Your task to perform on an android device: Open a new incognito window in Chrome Image 0: 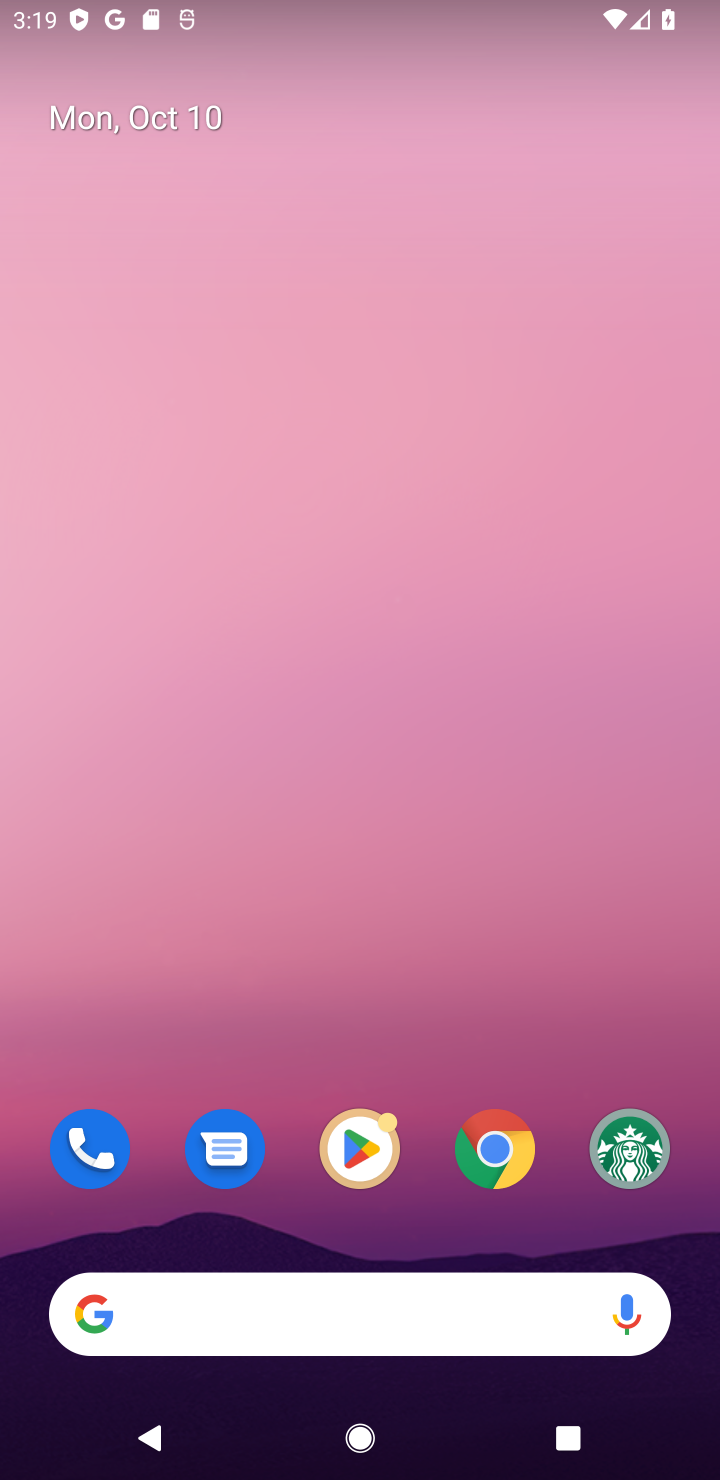
Step 0: click (462, 1155)
Your task to perform on an android device: Open a new incognito window in Chrome Image 1: 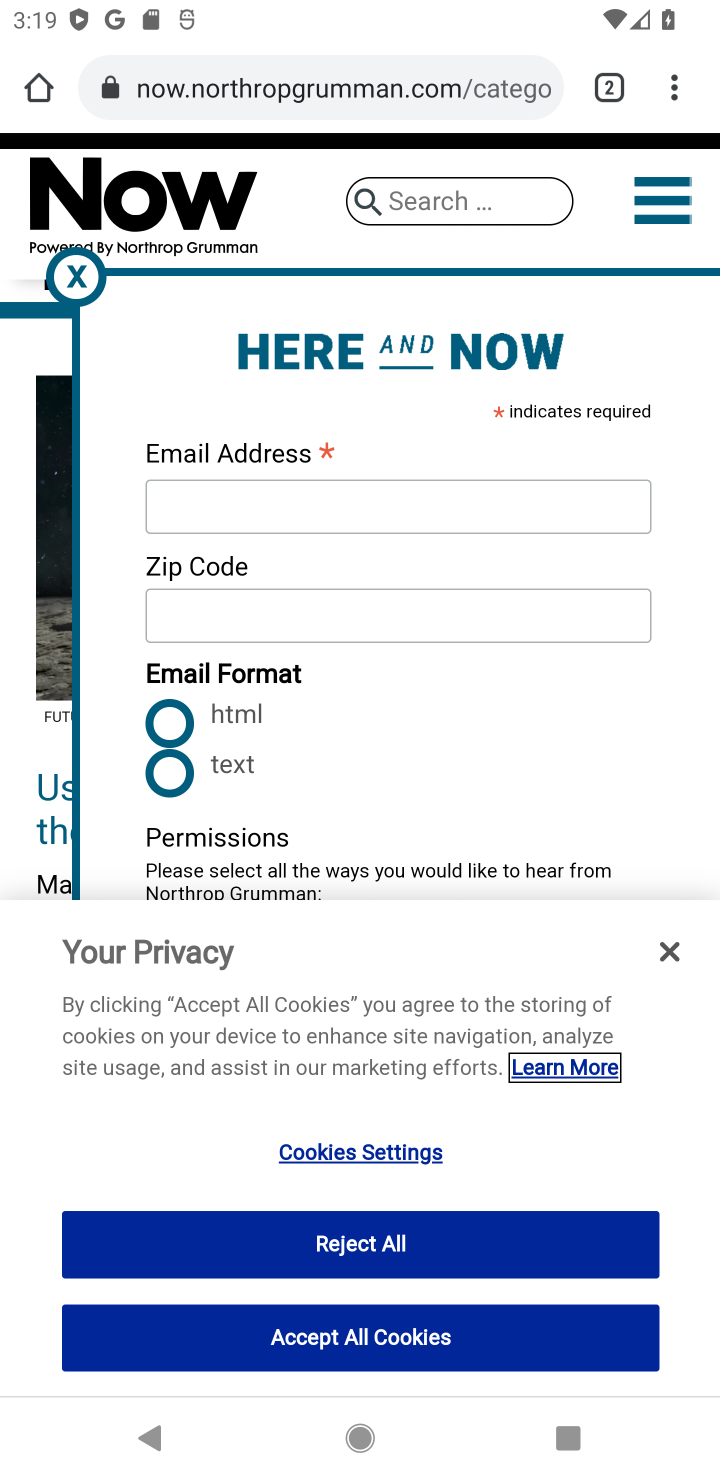
Step 1: click (674, 89)
Your task to perform on an android device: Open a new incognito window in Chrome Image 2: 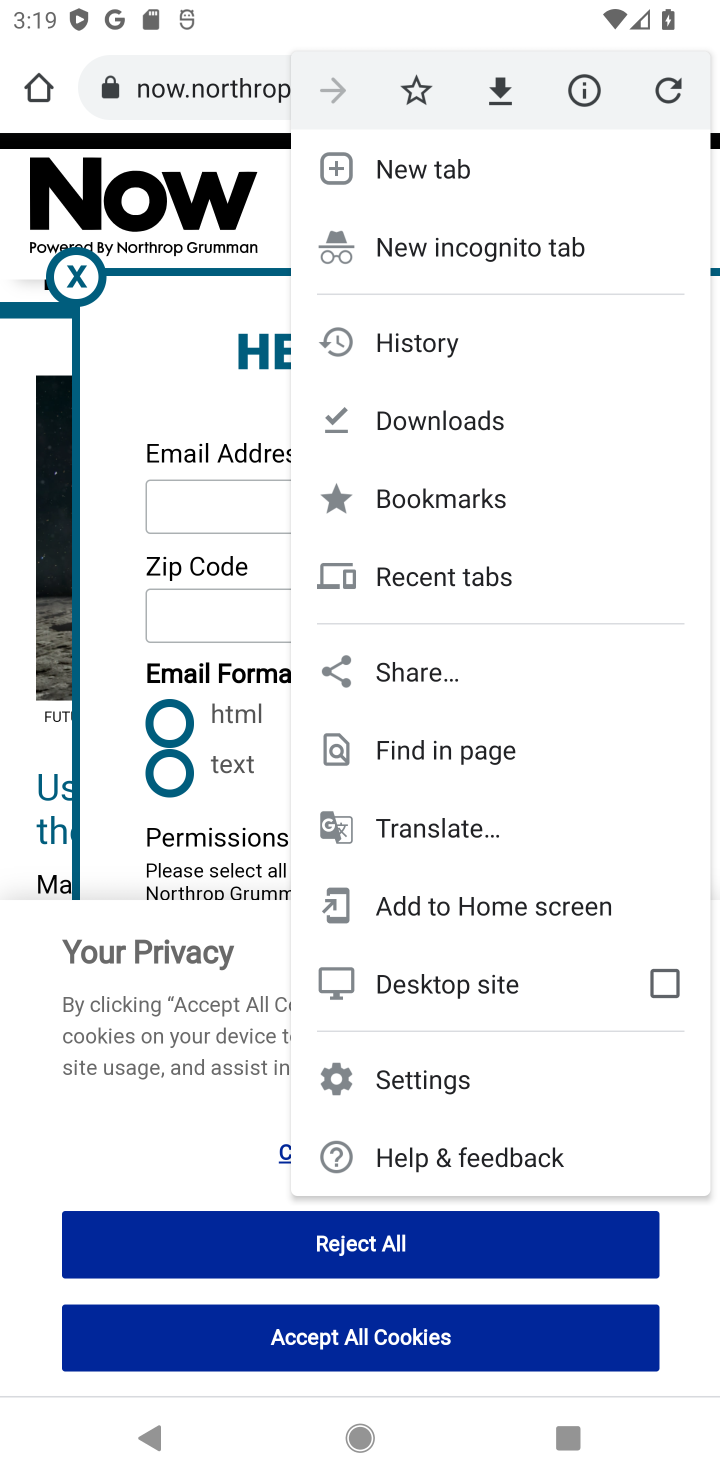
Step 2: click (573, 239)
Your task to perform on an android device: Open a new incognito window in Chrome Image 3: 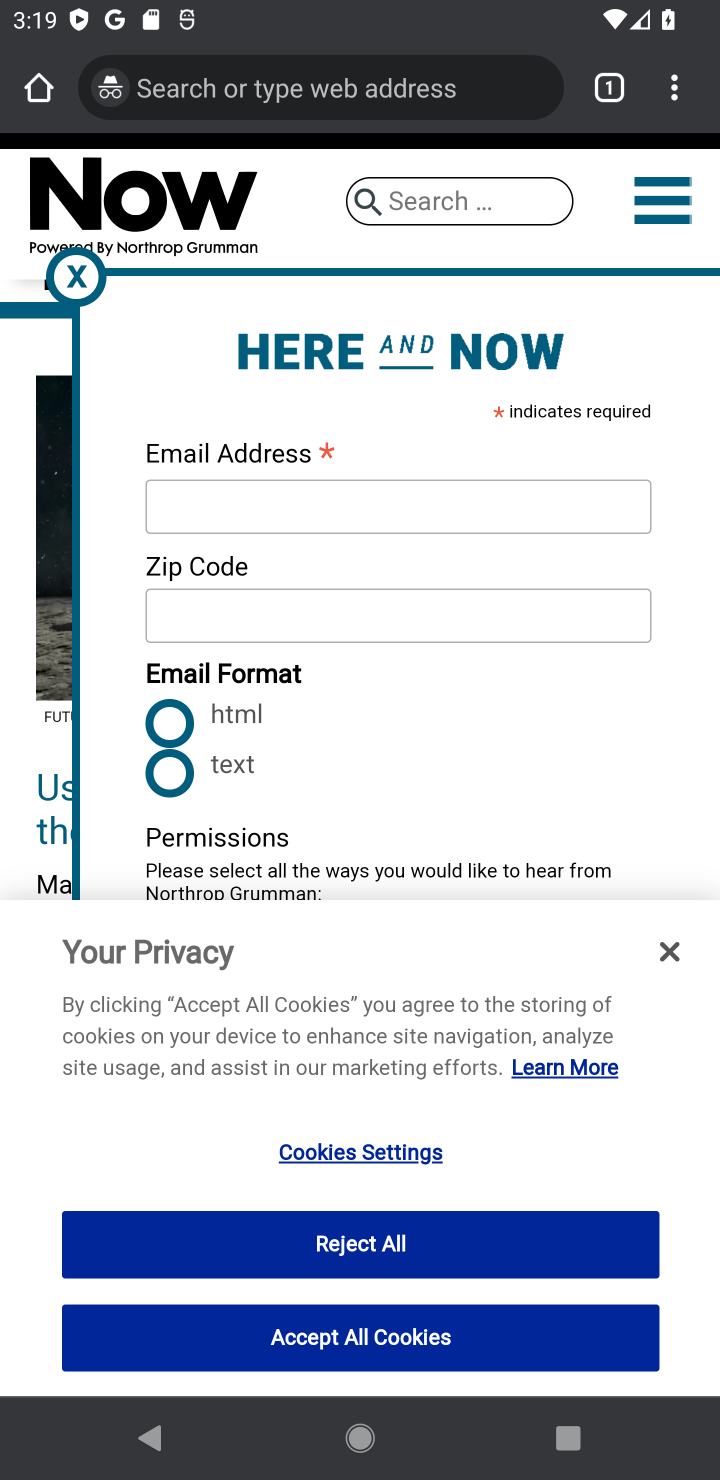
Step 3: task complete